Your task to perform on an android device: Open the Play Movies app and select the watchlist tab. Image 0: 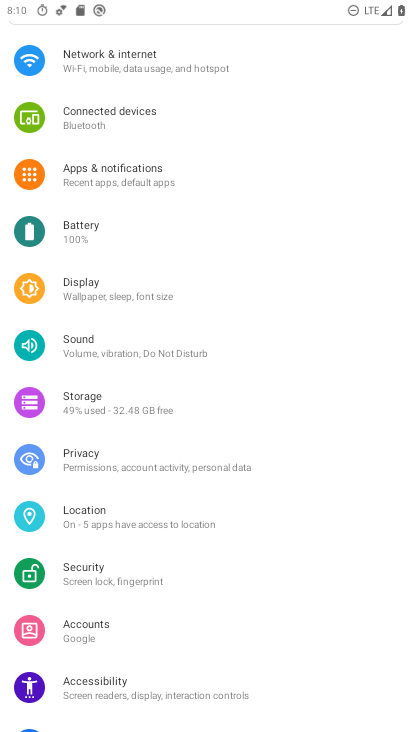
Step 0: press home button
Your task to perform on an android device: Open the Play Movies app and select the watchlist tab. Image 1: 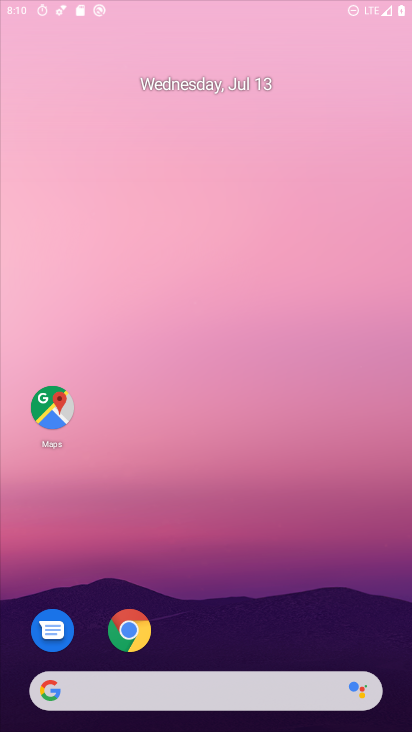
Step 1: drag from (392, 689) to (160, 68)
Your task to perform on an android device: Open the Play Movies app and select the watchlist tab. Image 2: 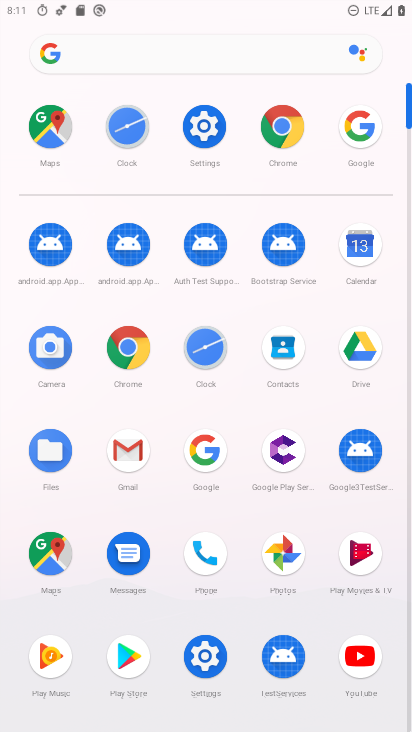
Step 2: click (354, 567)
Your task to perform on an android device: Open the Play Movies app and select the watchlist tab. Image 3: 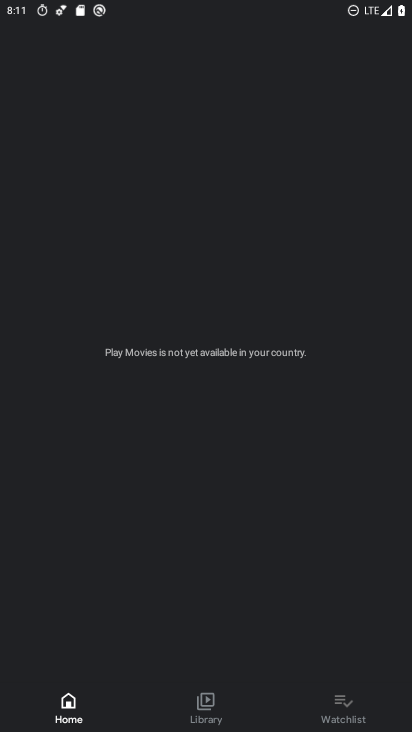
Step 3: click (352, 699)
Your task to perform on an android device: Open the Play Movies app and select the watchlist tab. Image 4: 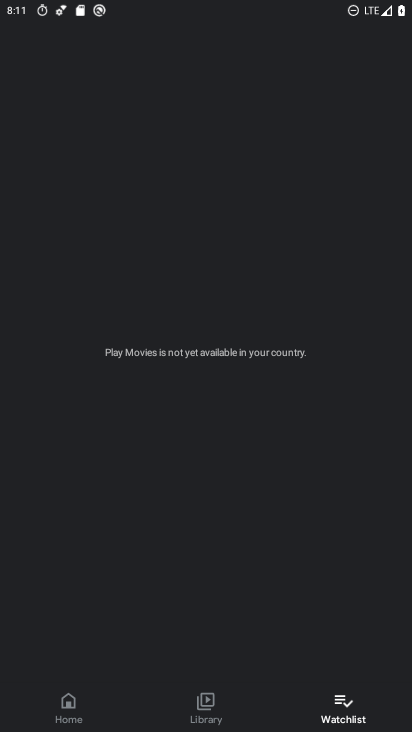
Step 4: task complete